Your task to perform on an android device: turn off priority inbox in the gmail app Image 0: 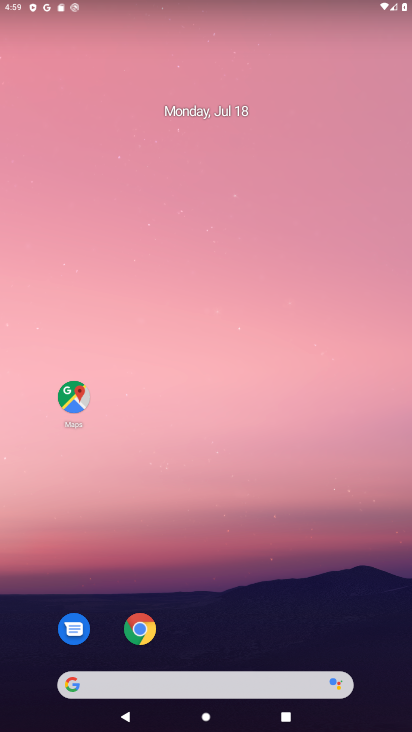
Step 0: drag from (265, 509) to (265, 84)
Your task to perform on an android device: turn off priority inbox in the gmail app Image 1: 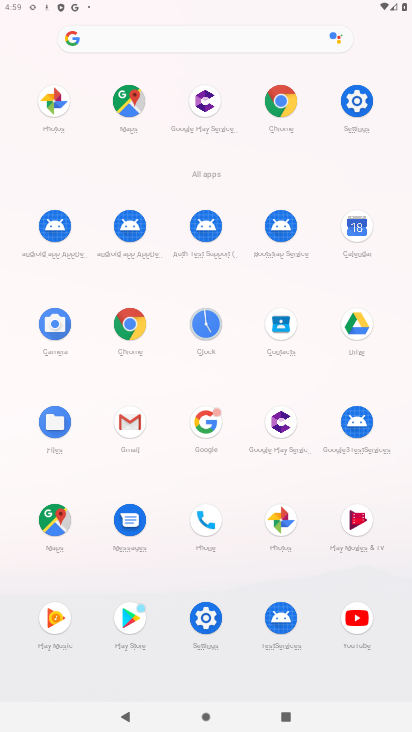
Step 1: click (120, 421)
Your task to perform on an android device: turn off priority inbox in the gmail app Image 2: 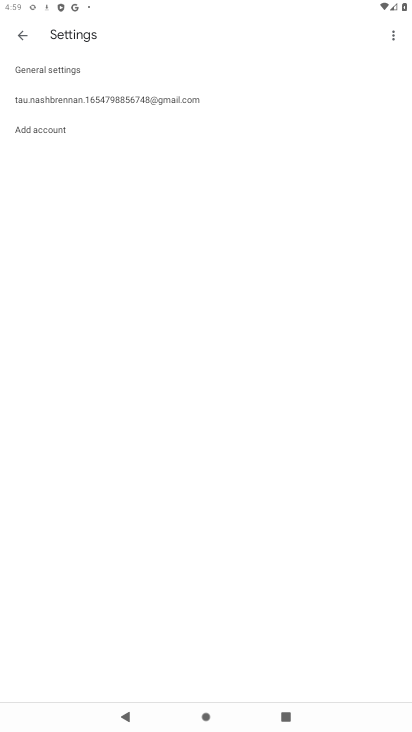
Step 2: click (28, 90)
Your task to perform on an android device: turn off priority inbox in the gmail app Image 3: 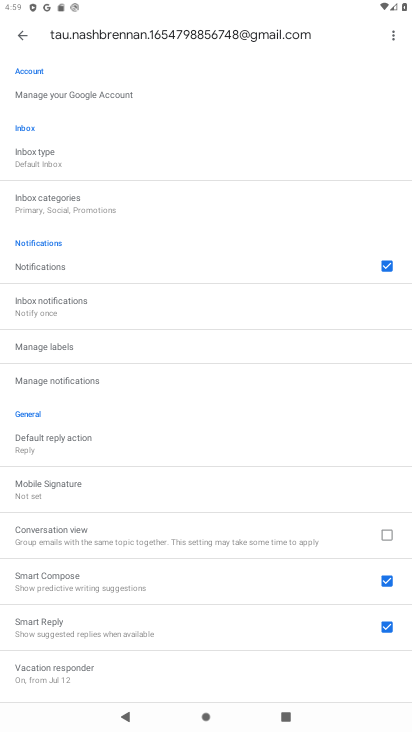
Step 3: click (41, 156)
Your task to perform on an android device: turn off priority inbox in the gmail app Image 4: 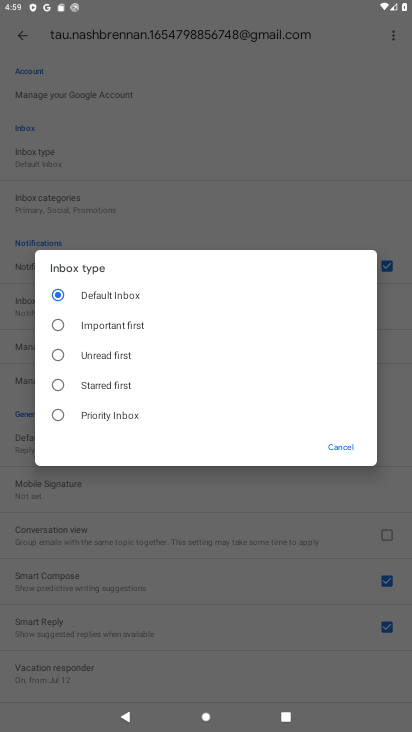
Step 4: task complete